Your task to perform on an android device: set an alarm Image 0: 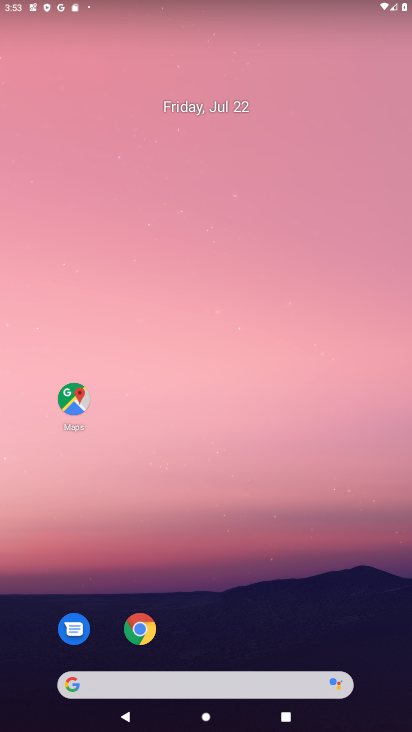
Step 0: drag from (213, 687) to (238, 64)
Your task to perform on an android device: set an alarm Image 1: 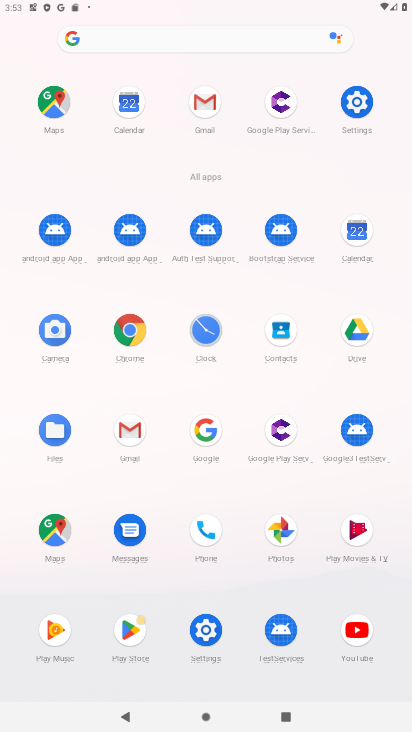
Step 1: click (198, 358)
Your task to perform on an android device: set an alarm Image 2: 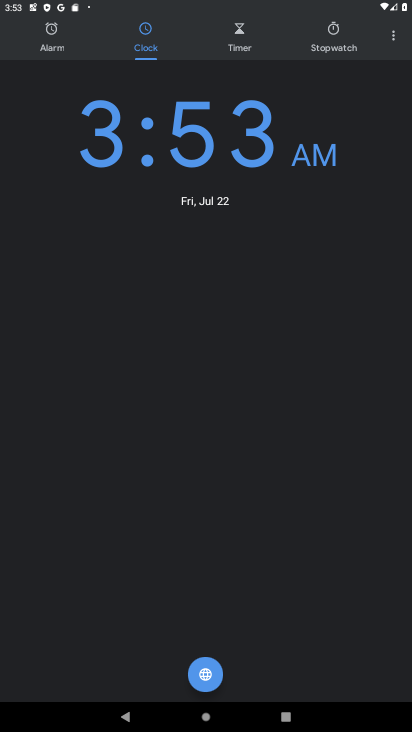
Step 2: click (53, 45)
Your task to perform on an android device: set an alarm Image 3: 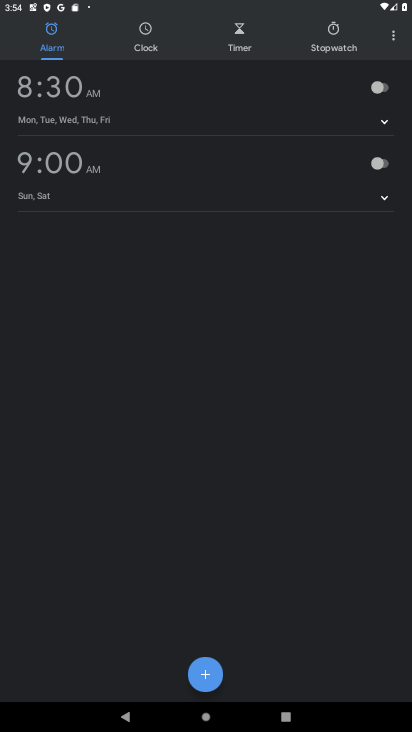
Step 3: click (200, 681)
Your task to perform on an android device: set an alarm Image 4: 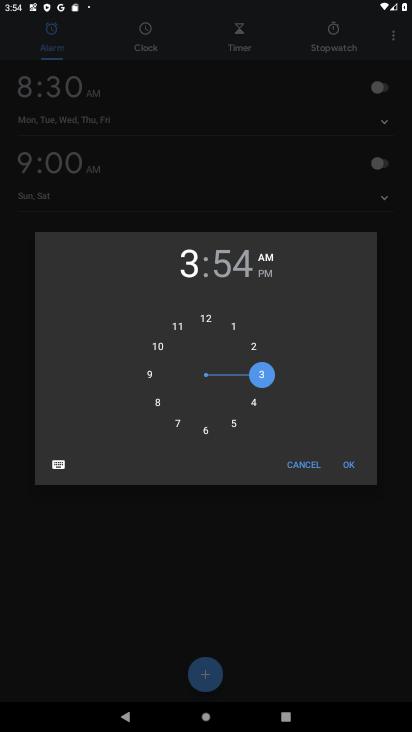
Step 4: click (346, 471)
Your task to perform on an android device: set an alarm Image 5: 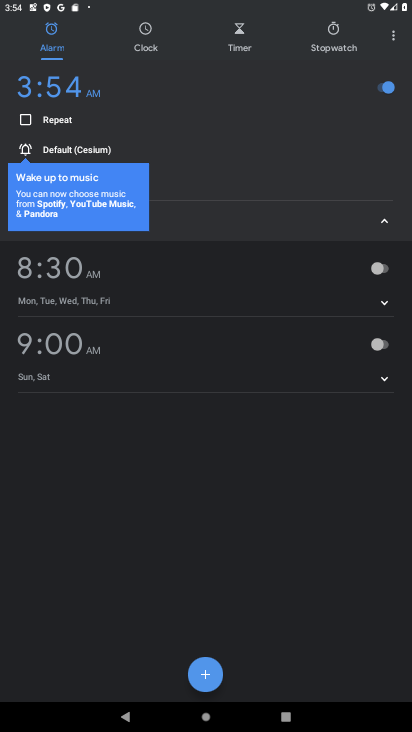
Step 5: task complete